Your task to perform on an android device: Go to internet settings Image 0: 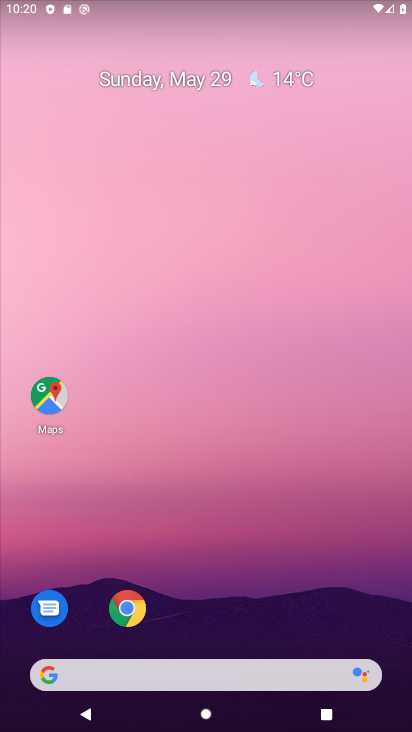
Step 0: drag from (232, 656) to (281, 226)
Your task to perform on an android device: Go to internet settings Image 1: 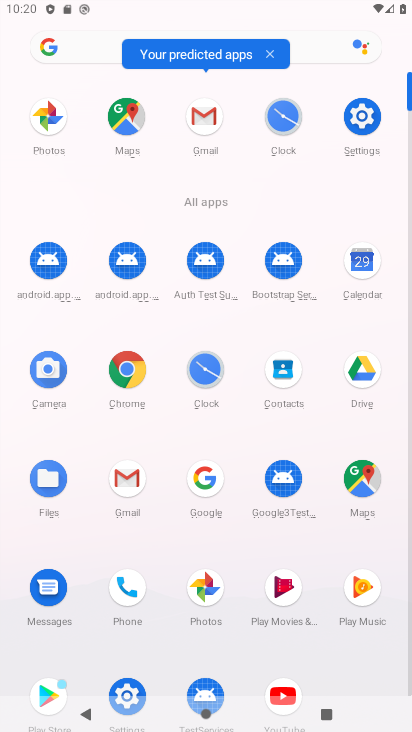
Step 1: click (365, 121)
Your task to perform on an android device: Go to internet settings Image 2: 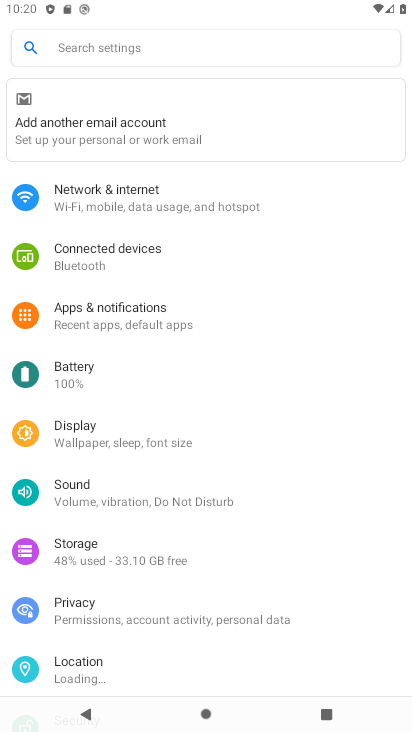
Step 2: click (117, 207)
Your task to perform on an android device: Go to internet settings Image 3: 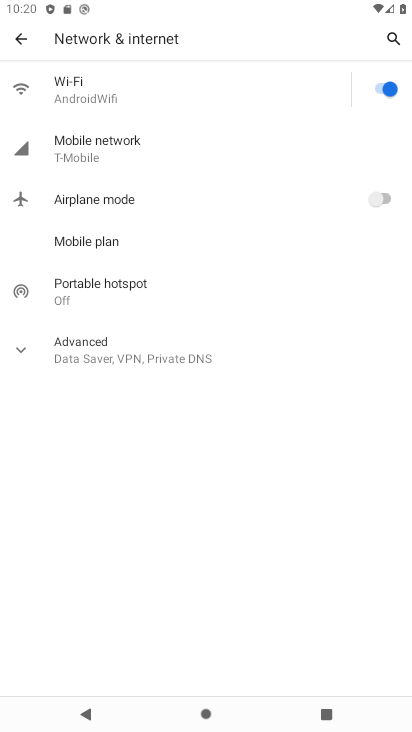
Step 3: click (127, 343)
Your task to perform on an android device: Go to internet settings Image 4: 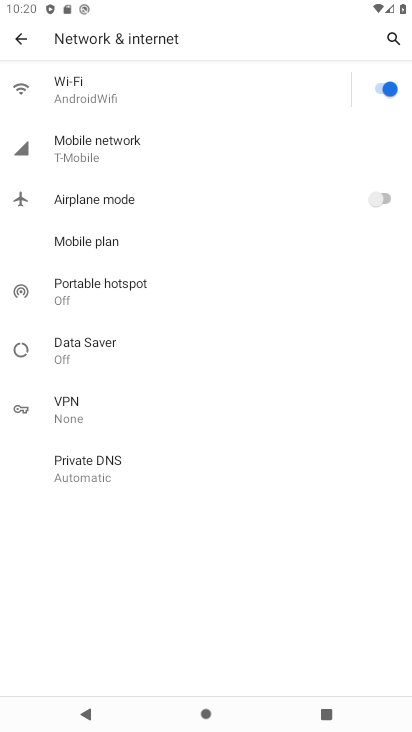
Step 4: task complete